Your task to perform on an android device: change keyboard looks Image 0: 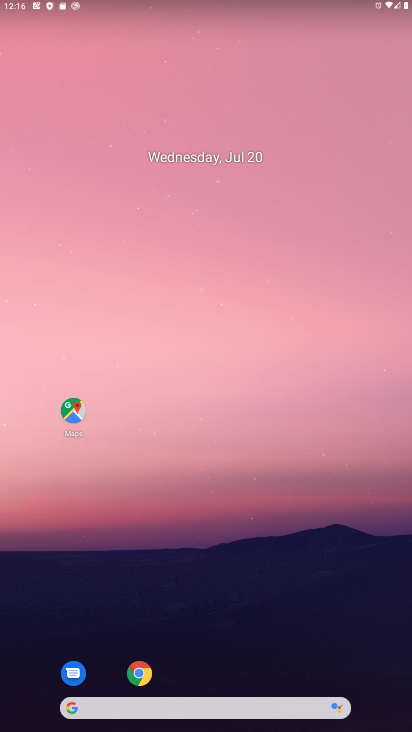
Step 0: drag from (204, 701) to (145, 126)
Your task to perform on an android device: change keyboard looks Image 1: 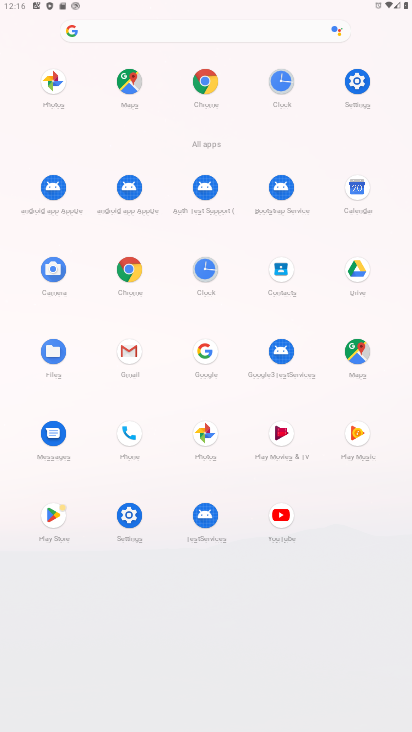
Step 1: click (131, 512)
Your task to perform on an android device: change keyboard looks Image 2: 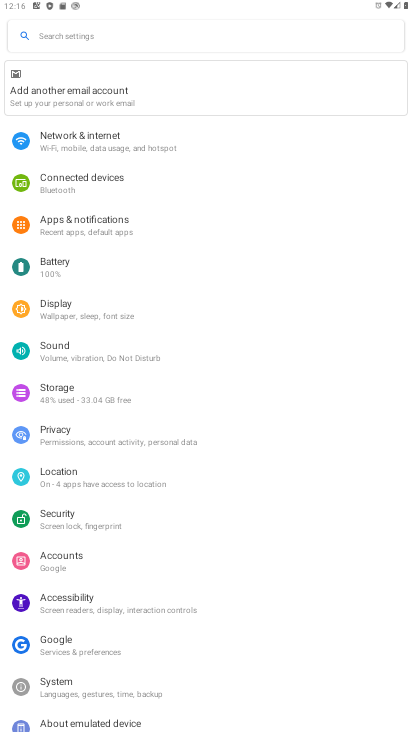
Step 2: click (125, 693)
Your task to perform on an android device: change keyboard looks Image 3: 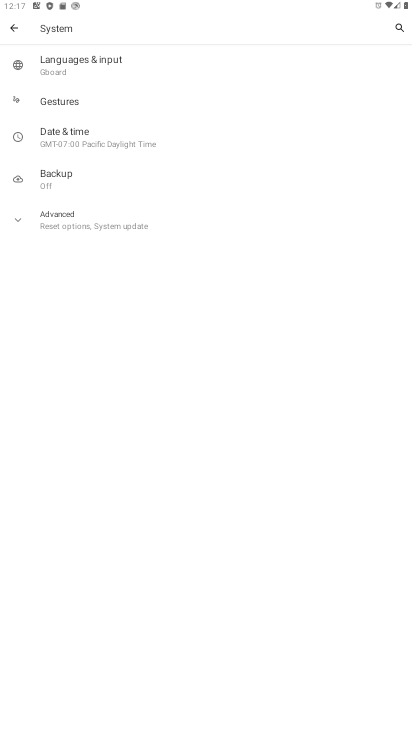
Step 3: click (78, 61)
Your task to perform on an android device: change keyboard looks Image 4: 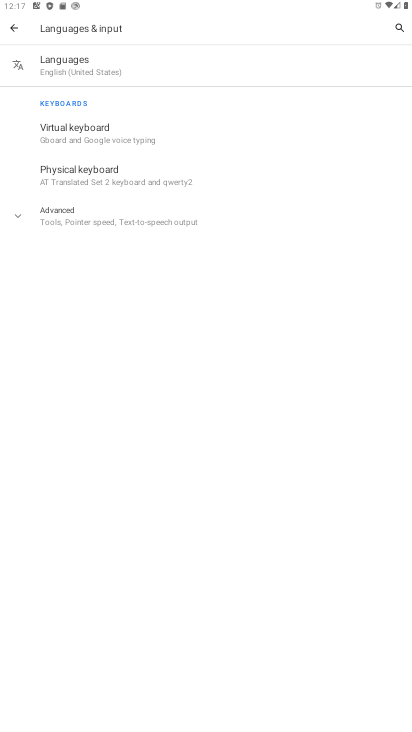
Step 4: click (91, 140)
Your task to perform on an android device: change keyboard looks Image 5: 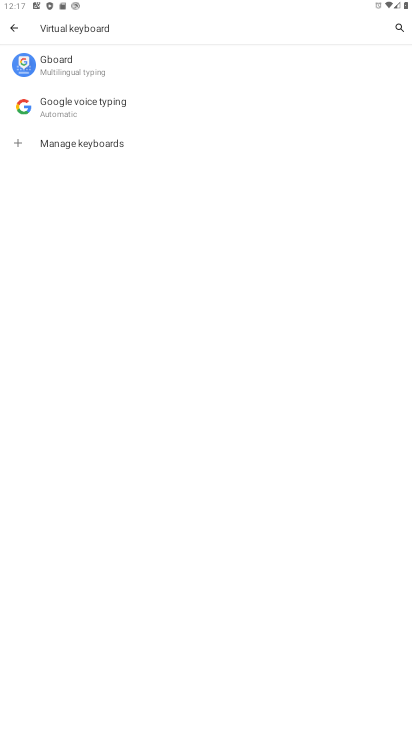
Step 5: click (87, 73)
Your task to perform on an android device: change keyboard looks Image 6: 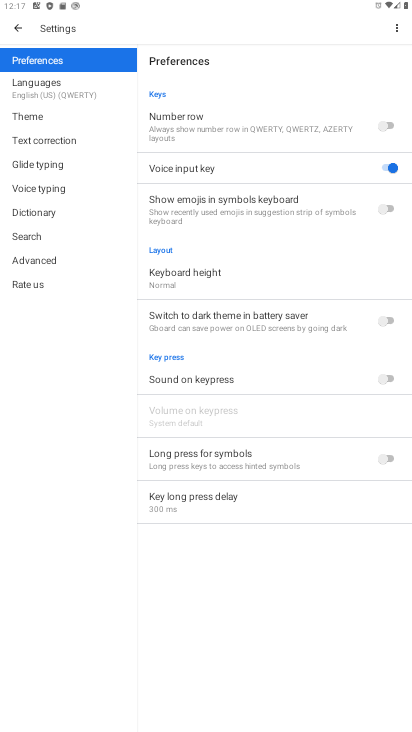
Step 6: click (66, 115)
Your task to perform on an android device: change keyboard looks Image 7: 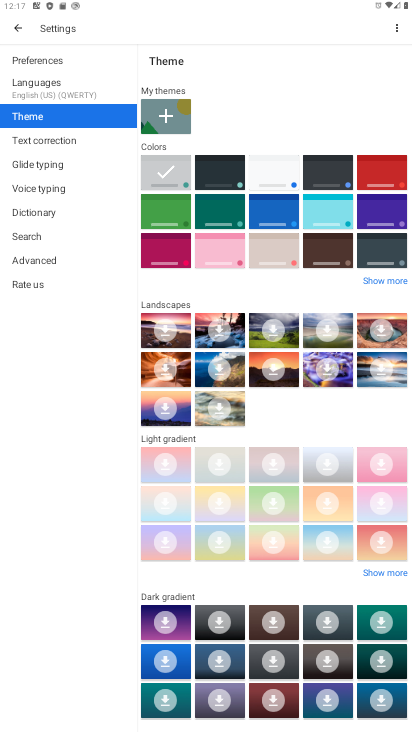
Step 7: click (259, 266)
Your task to perform on an android device: change keyboard looks Image 8: 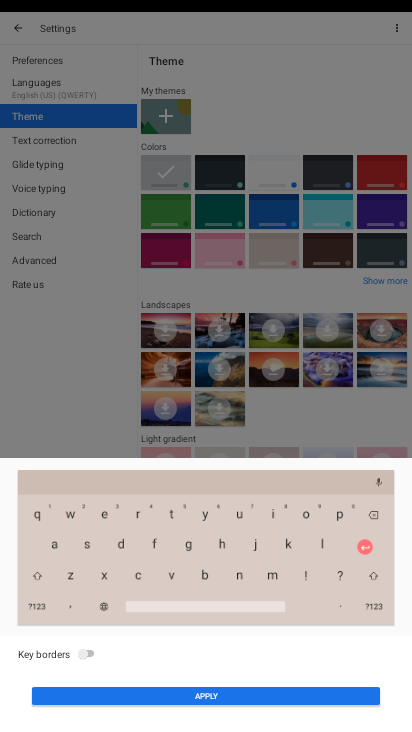
Step 8: click (89, 654)
Your task to perform on an android device: change keyboard looks Image 9: 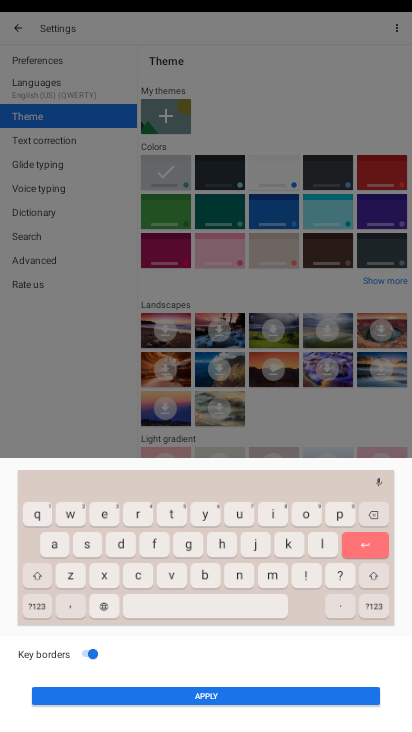
Step 9: click (192, 700)
Your task to perform on an android device: change keyboard looks Image 10: 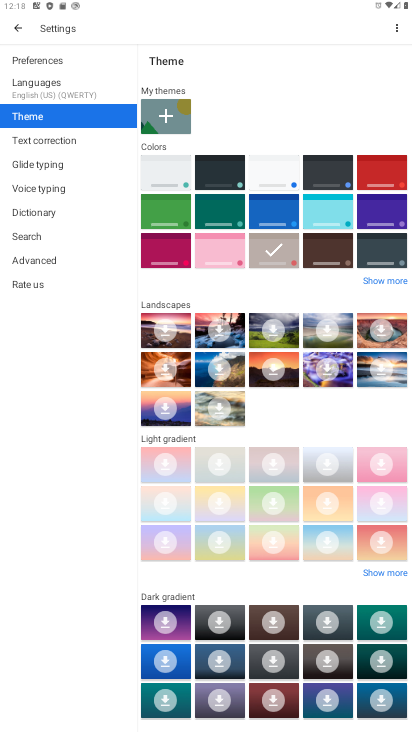
Step 10: task complete